Your task to perform on an android device: allow cookies in the chrome app Image 0: 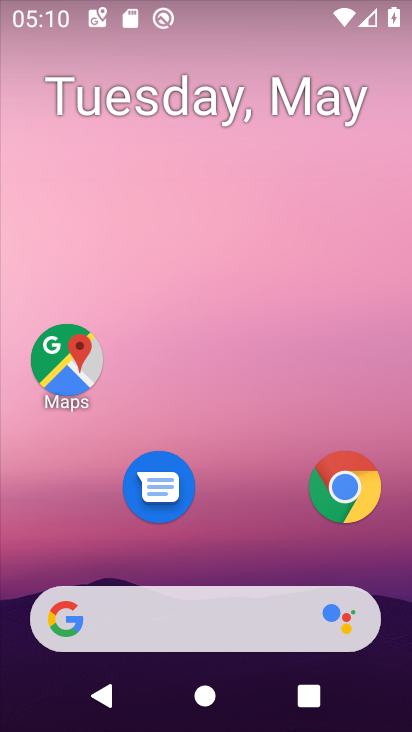
Step 0: click (365, 498)
Your task to perform on an android device: allow cookies in the chrome app Image 1: 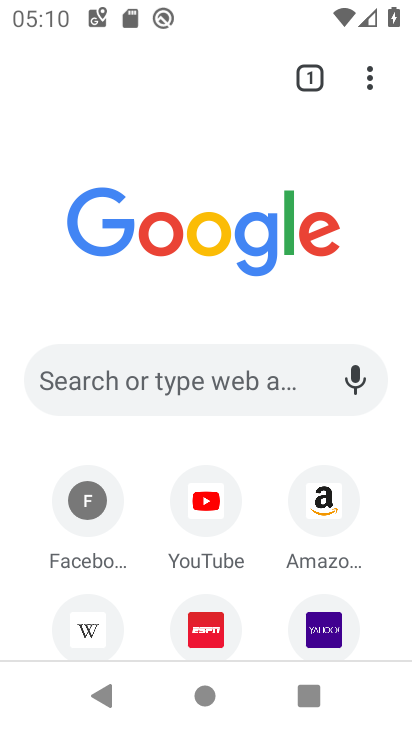
Step 1: click (361, 83)
Your task to perform on an android device: allow cookies in the chrome app Image 2: 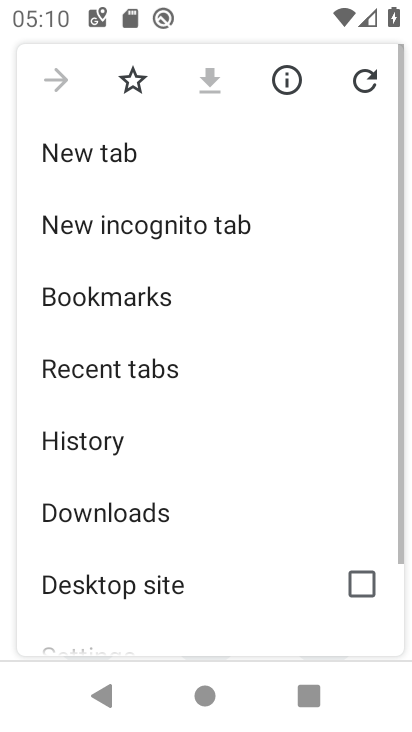
Step 2: drag from (142, 532) to (183, 203)
Your task to perform on an android device: allow cookies in the chrome app Image 3: 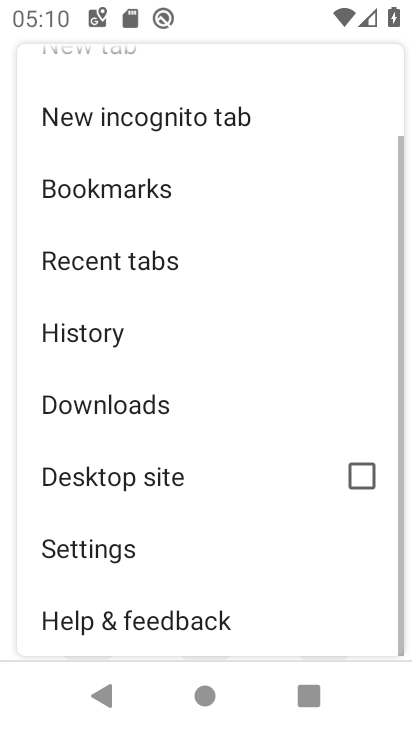
Step 3: click (129, 544)
Your task to perform on an android device: allow cookies in the chrome app Image 4: 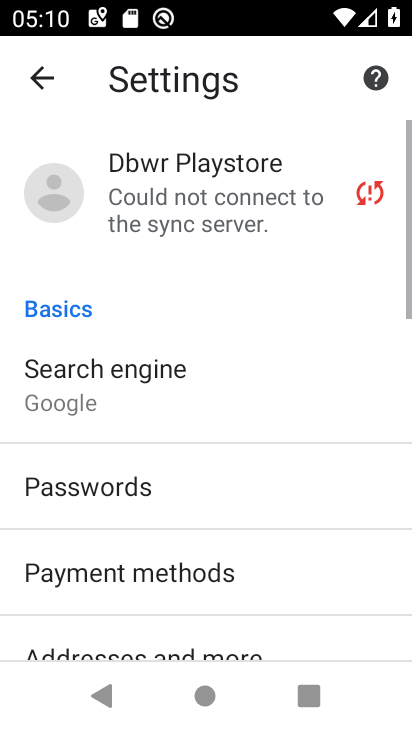
Step 4: drag from (129, 544) to (207, 59)
Your task to perform on an android device: allow cookies in the chrome app Image 5: 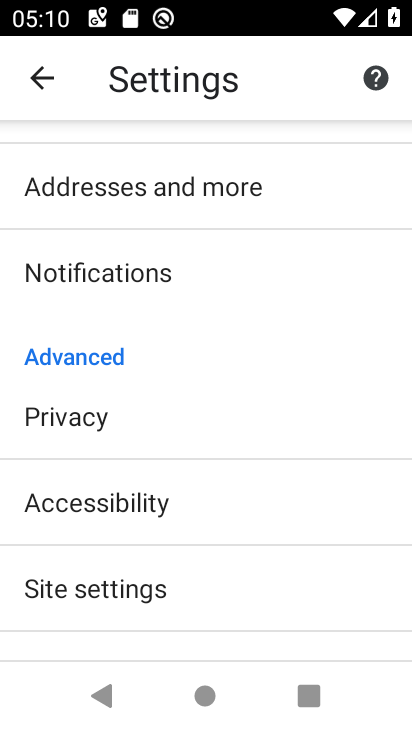
Step 5: drag from (215, 550) to (231, 297)
Your task to perform on an android device: allow cookies in the chrome app Image 6: 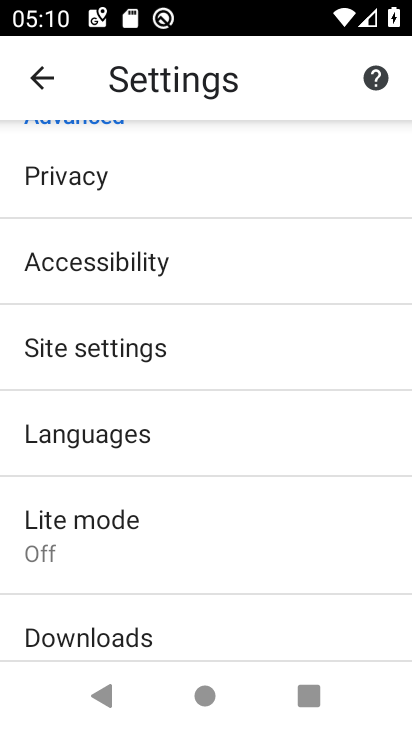
Step 6: click (211, 339)
Your task to perform on an android device: allow cookies in the chrome app Image 7: 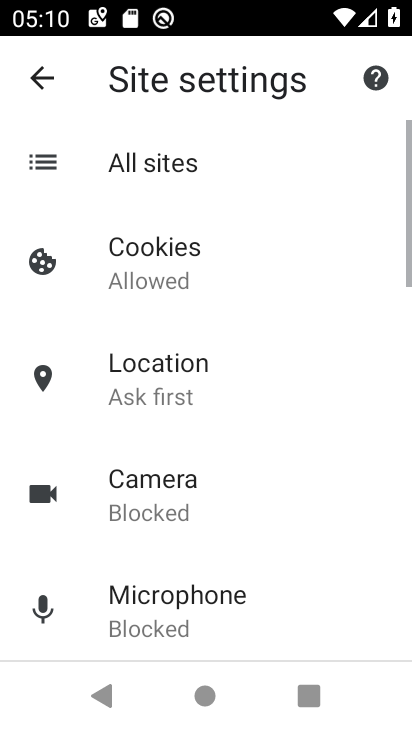
Step 7: click (189, 239)
Your task to perform on an android device: allow cookies in the chrome app Image 8: 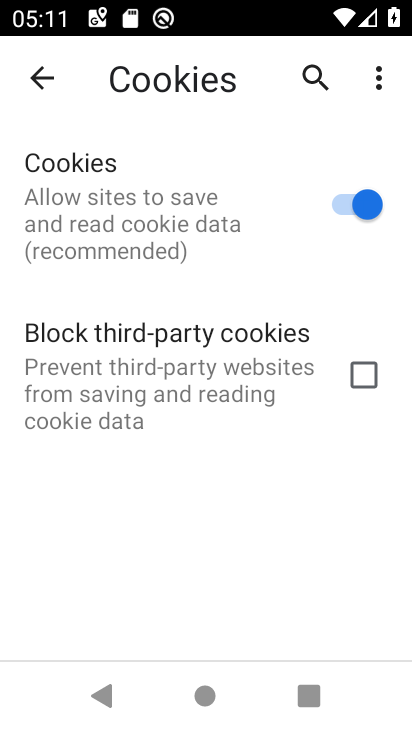
Step 8: task complete